Your task to perform on an android device: set the stopwatch Image 0: 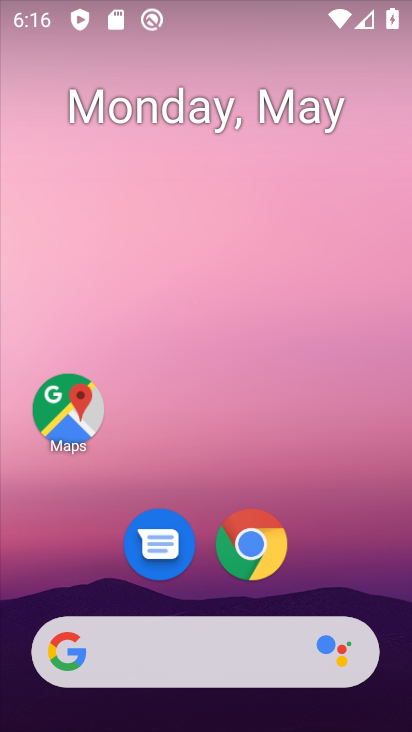
Step 0: drag from (355, 539) to (231, 26)
Your task to perform on an android device: set the stopwatch Image 1: 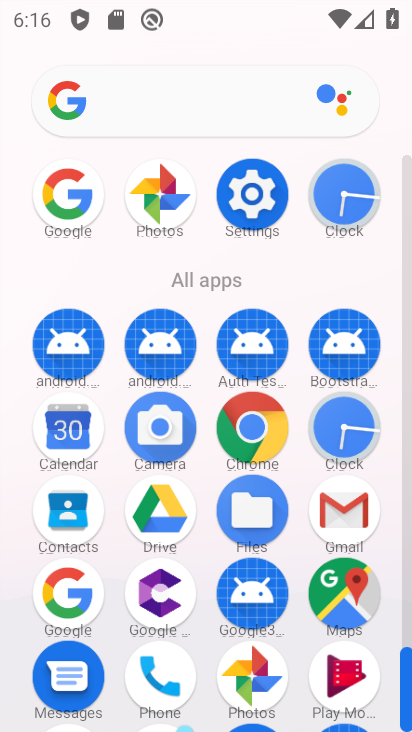
Step 1: click (341, 197)
Your task to perform on an android device: set the stopwatch Image 2: 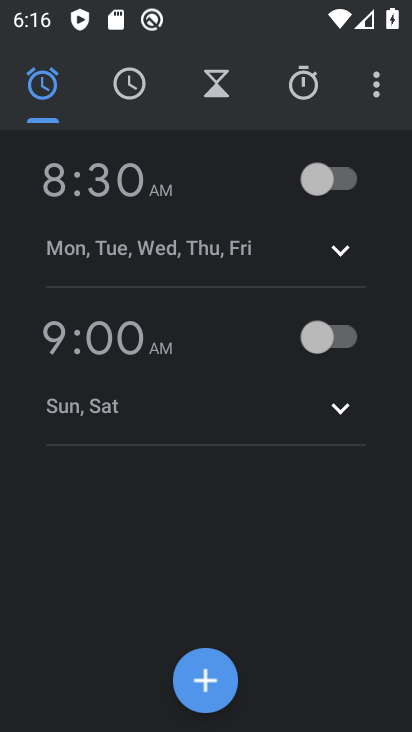
Step 2: click (293, 88)
Your task to perform on an android device: set the stopwatch Image 3: 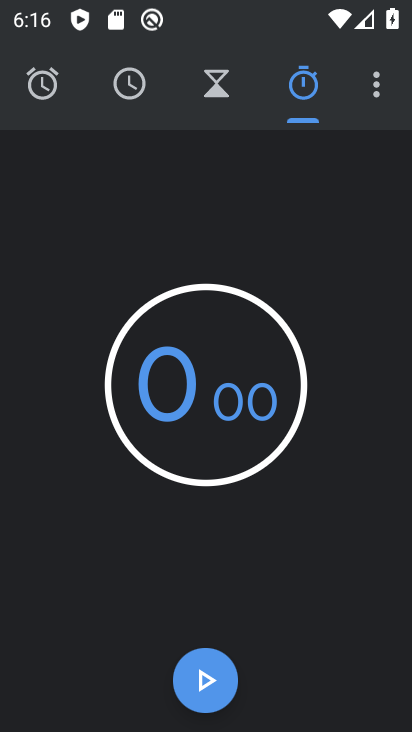
Step 3: click (208, 659)
Your task to perform on an android device: set the stopwatch Image 4: 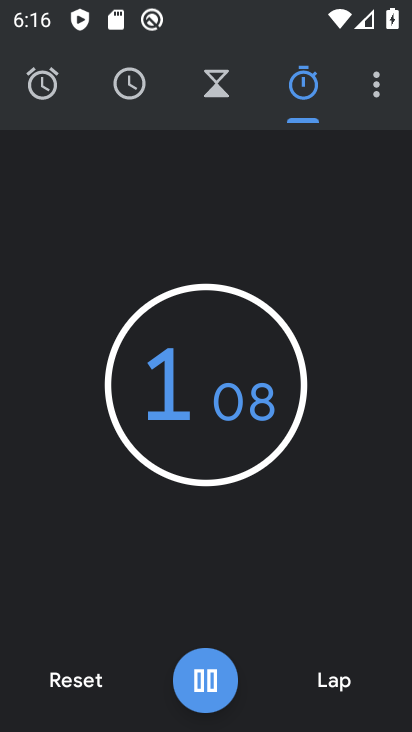
Step 4: task complete